Your task to perform on an android device: change your default location settings in chrome Image 0: 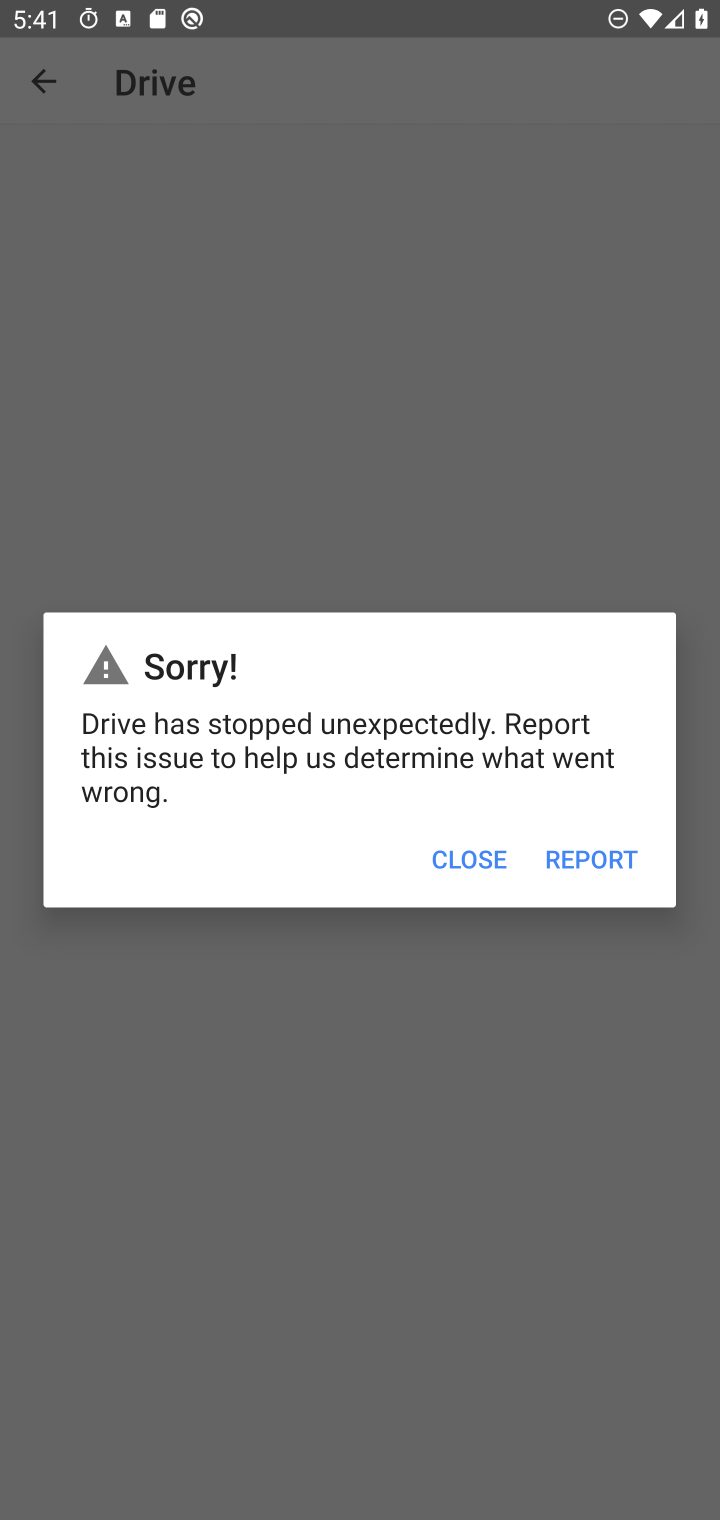
Step 0: press home button
Your task to perform on an android device: change your default location settings in chrome Image 1: 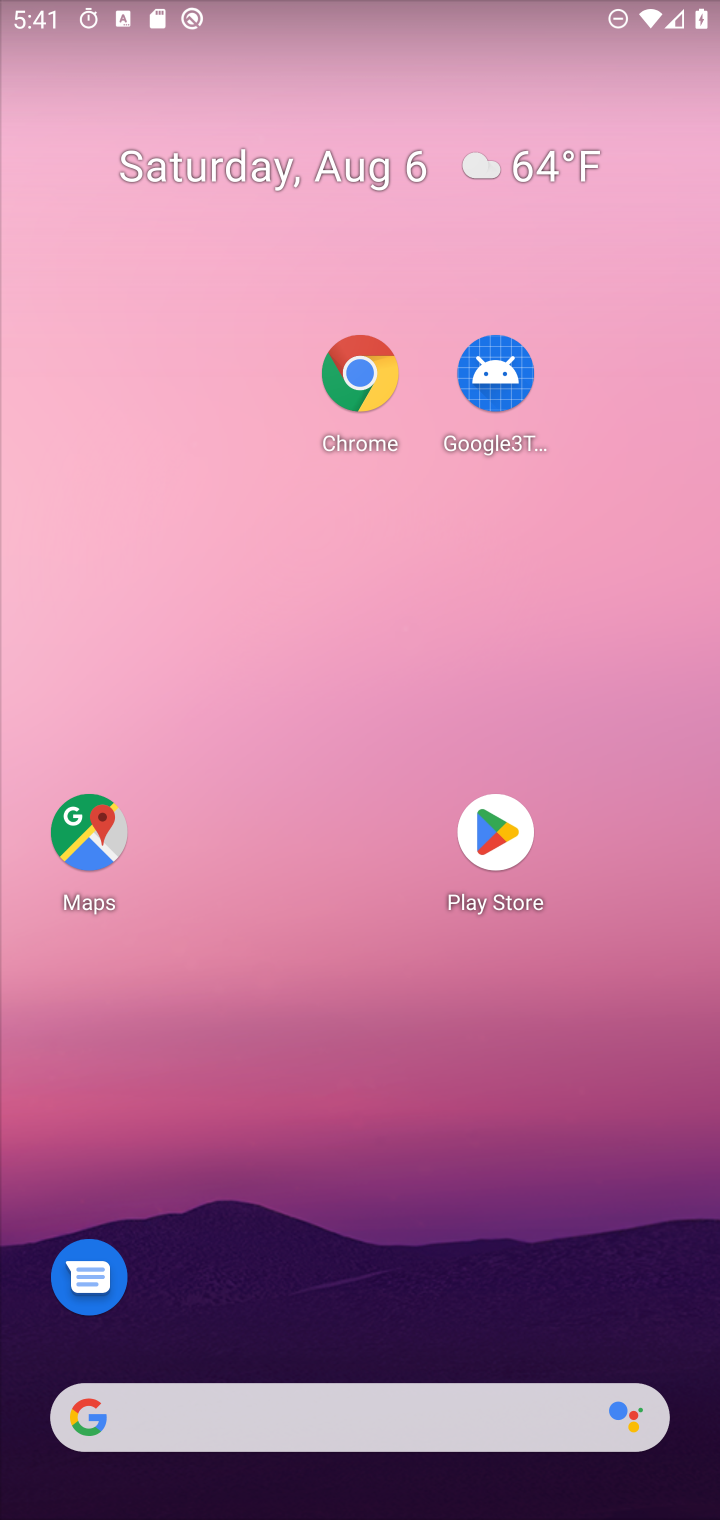
Step 1: drag from (351, 1424) to (416, 1374)
Your task to perform on an android device: change your default location settings in chrome Image 2: 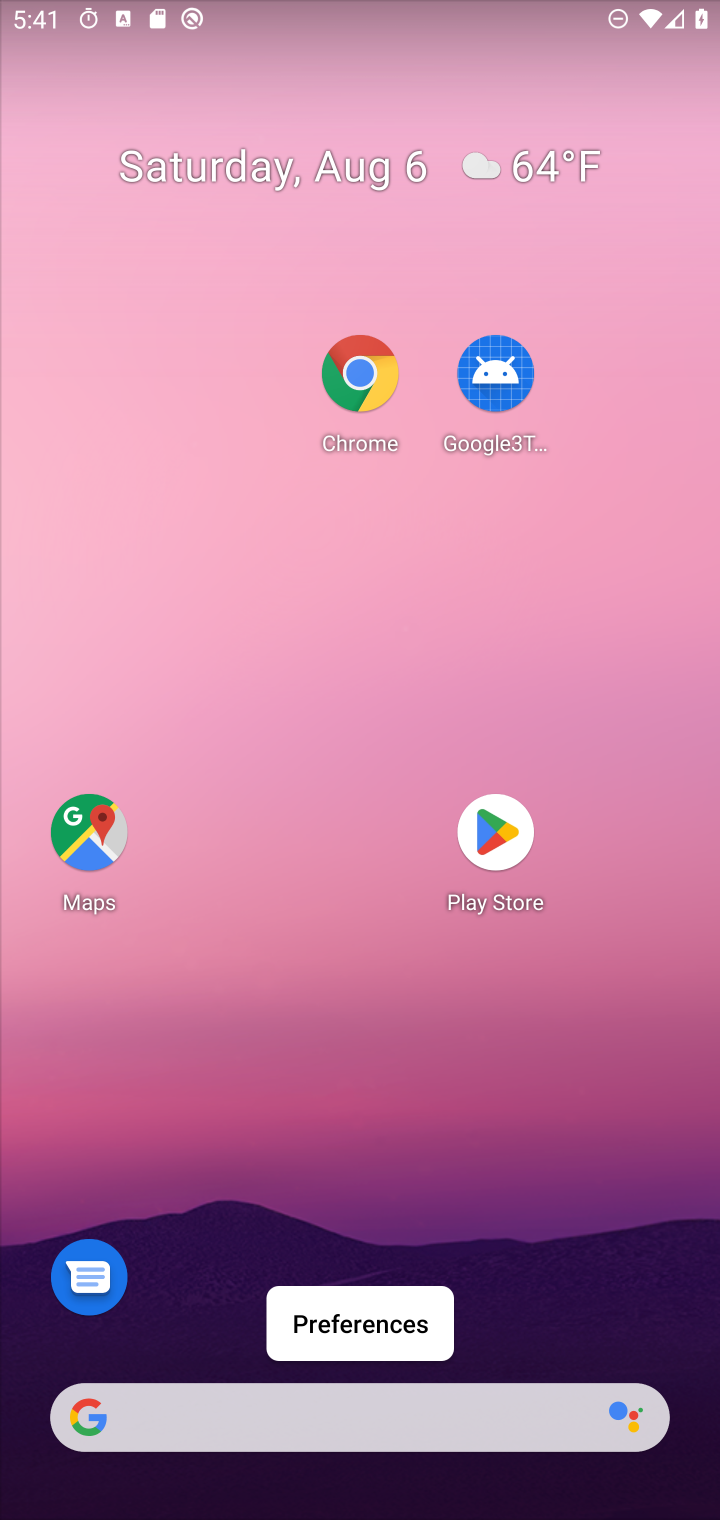
Step 2: drag from (454, 1400) to (293, 227)
Your task to perform on an android device: change your default location settings in chrome Image 3: 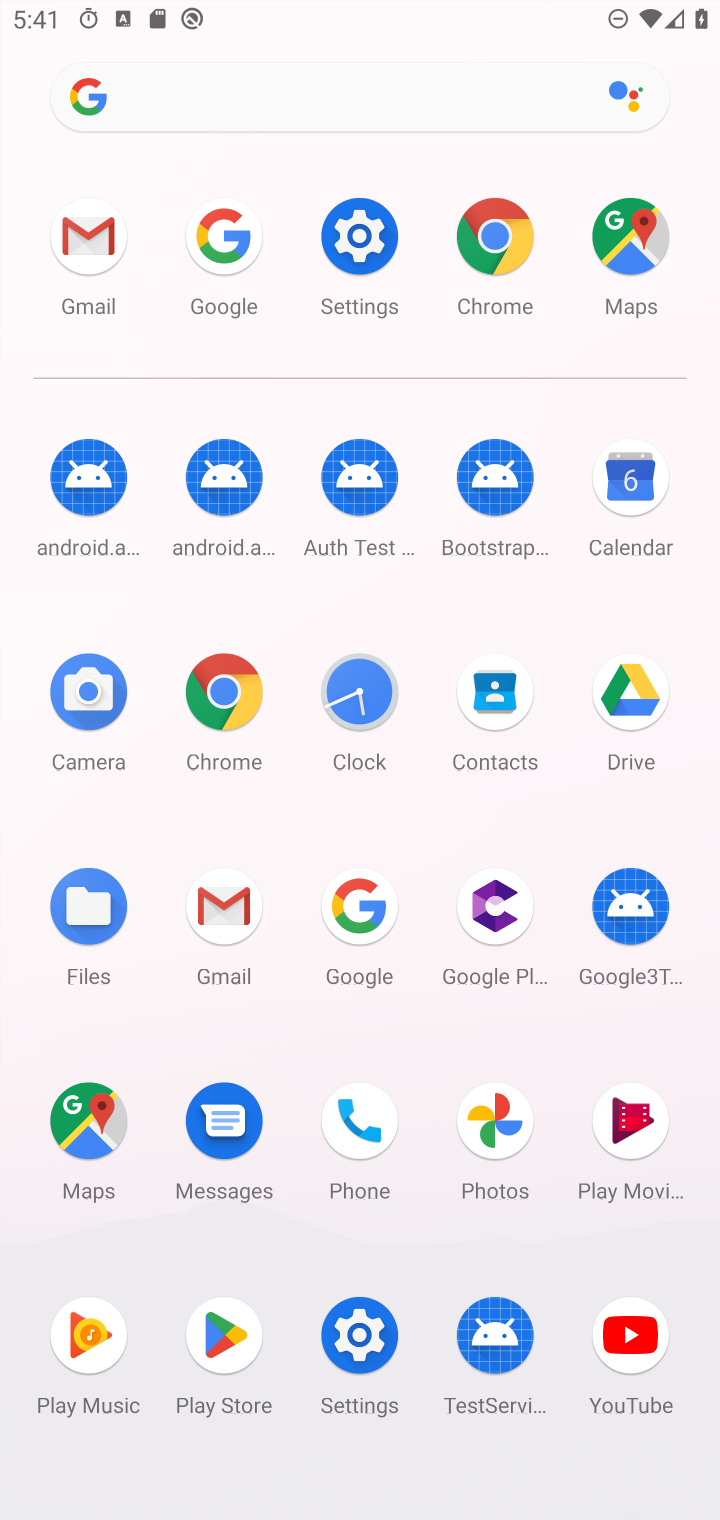
Step 3: click (220, 682)
Your task to perform on an android device: change your default location settings in chrome Image 4: 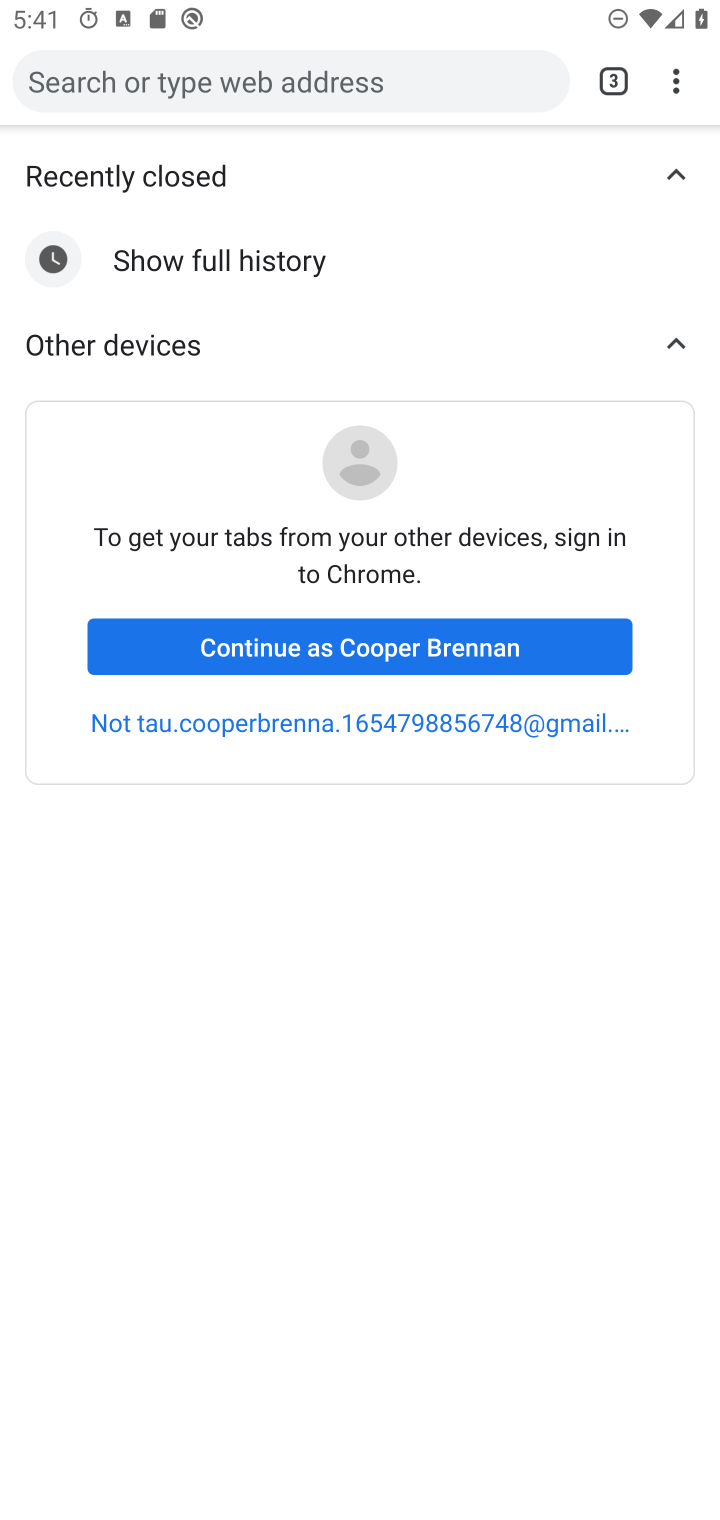
Step 4: click (674, 83)
Your task to perform on an android device: change your default location settings in chrome Image 5: 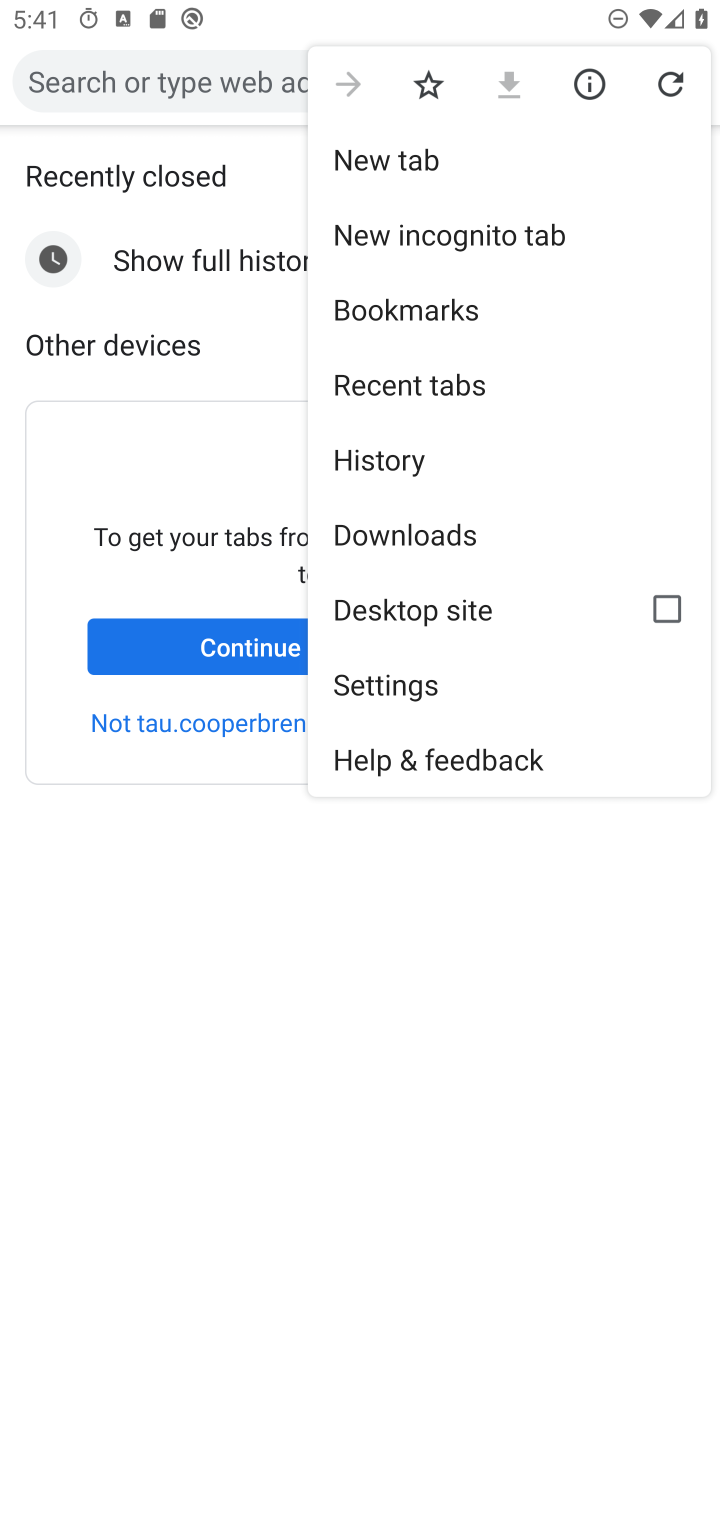
Step 5: click (411, 676)
Your task to perform on an android device: change your default location settings in chrome Image 6: 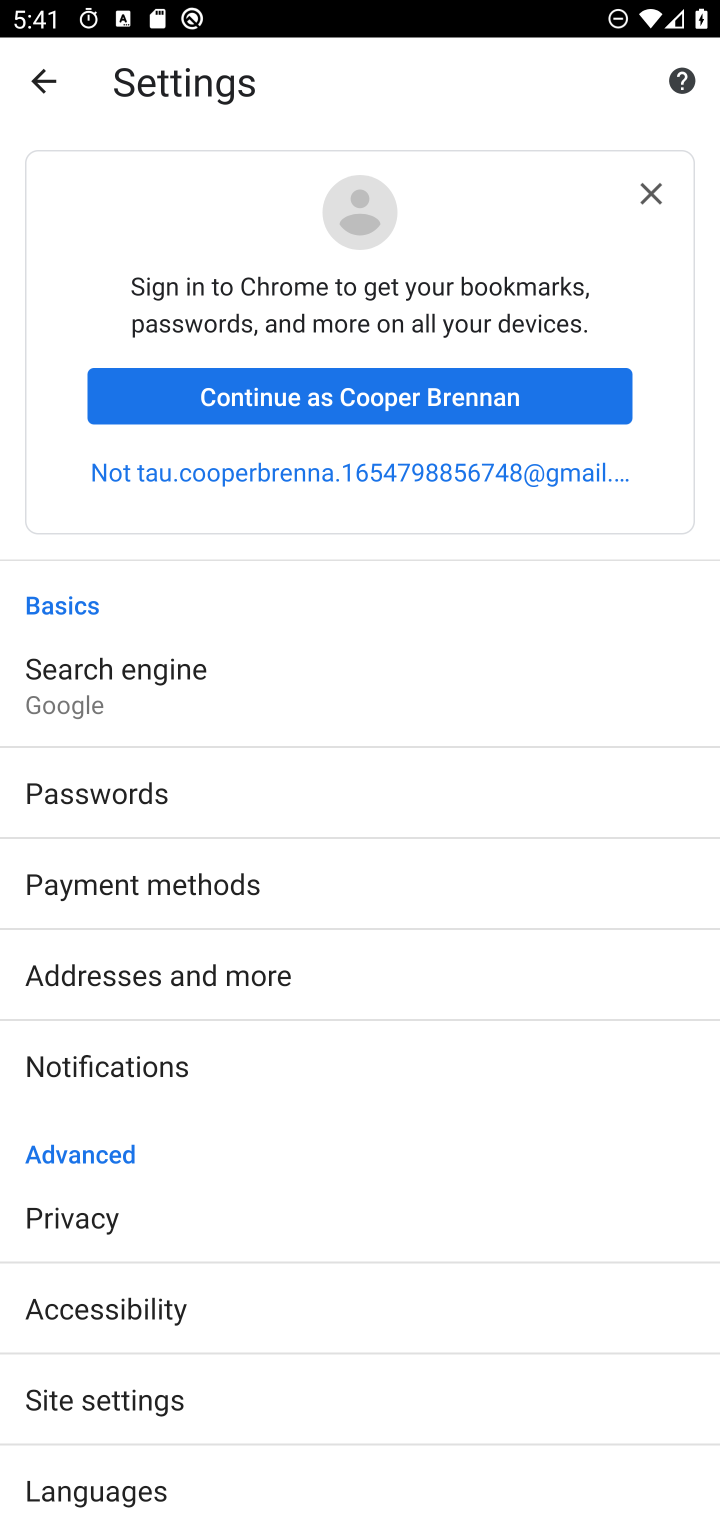
Step 6: click (240, 1399)
Your task to perform on an android device: change your default location settings in chrome Image 7: 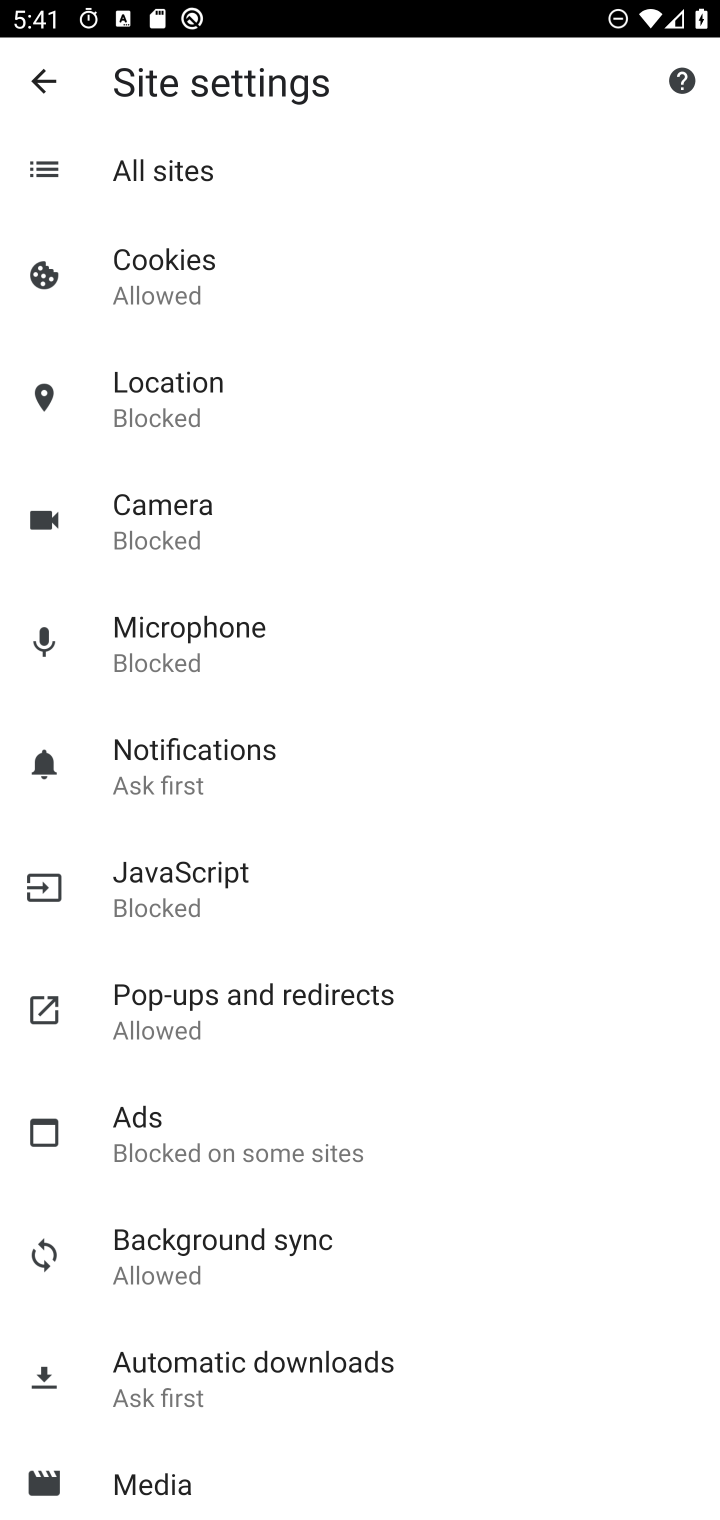
Step 7: click (251, 392)
Your task to perform on an android device: change your default location settings in chrome Image 8: 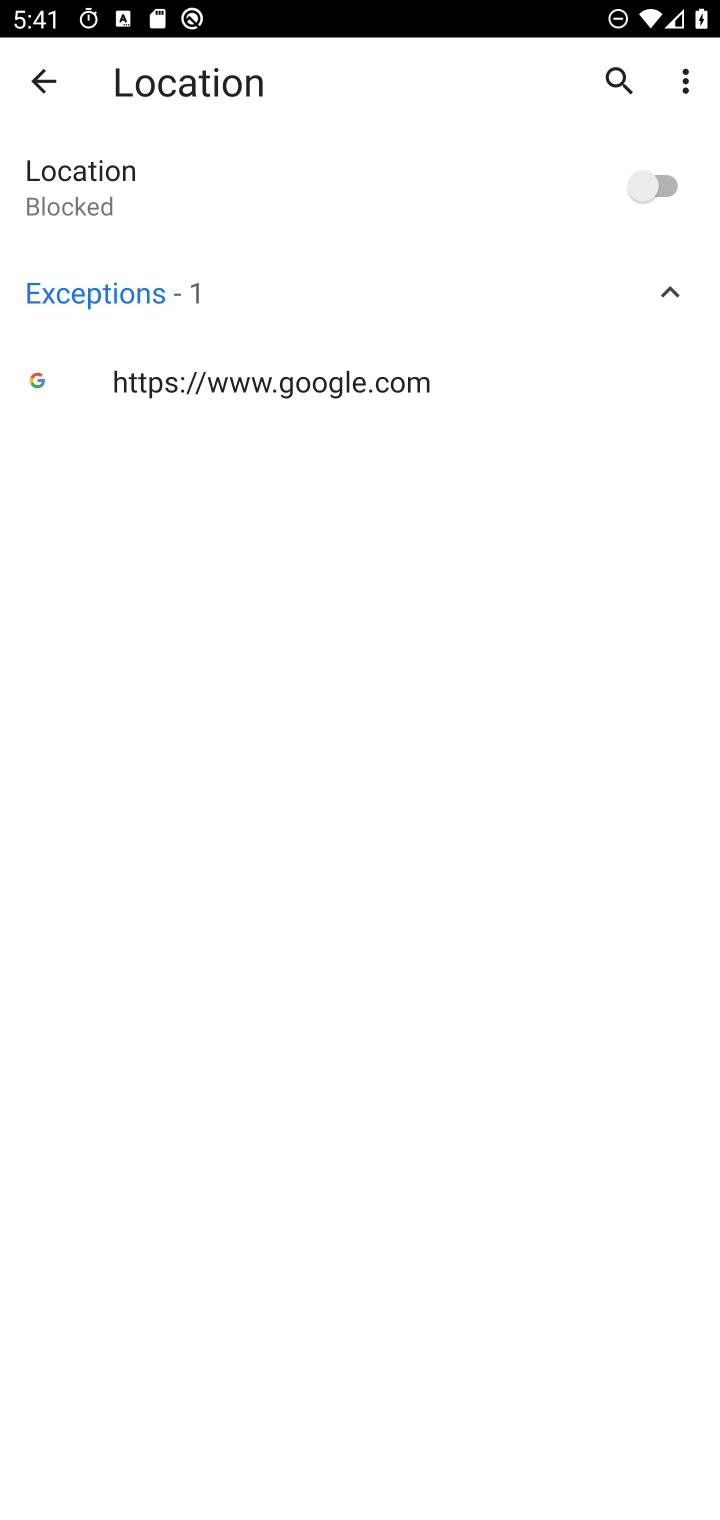
Step 8: click (668, 186)
Your task to perform on an android device: change your default location settings in chrome Image 9: 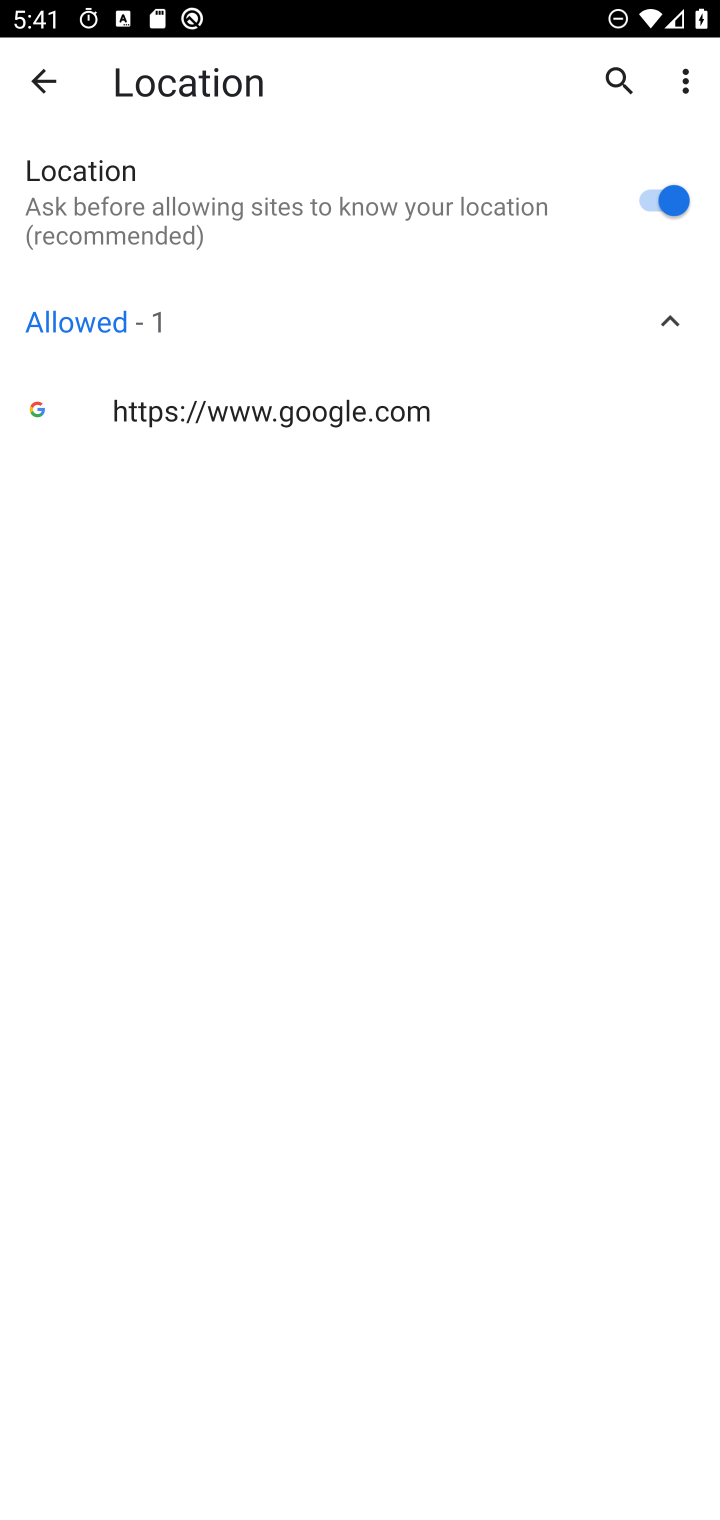
Step 9: task complete